Your task to perform on an android device: Open Google Chrome Image 0: 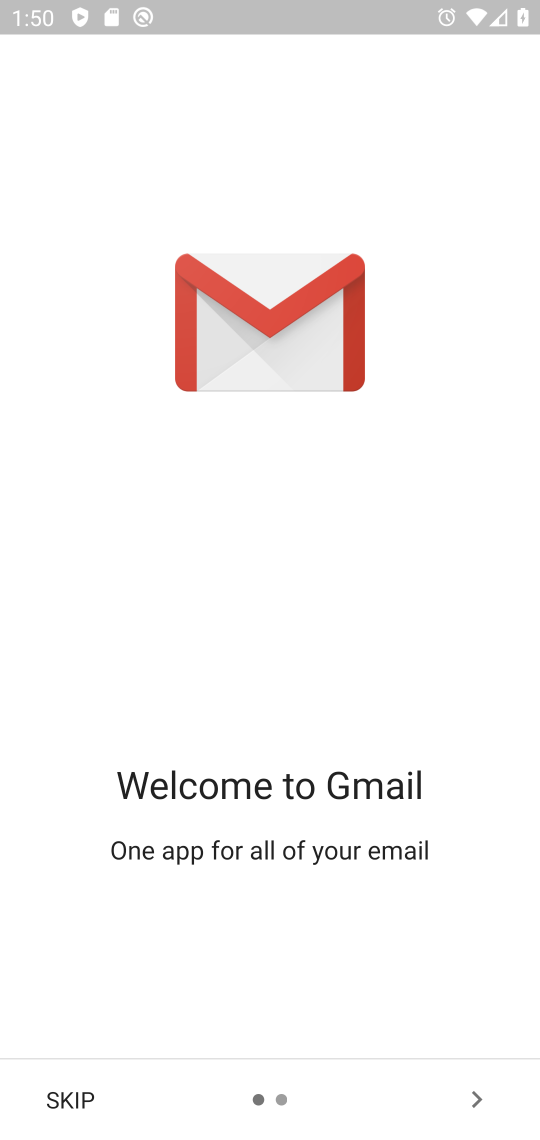
Step 0: click (55, 1109)
Your task to perform on an android device: Open Google Chrome Image 1: 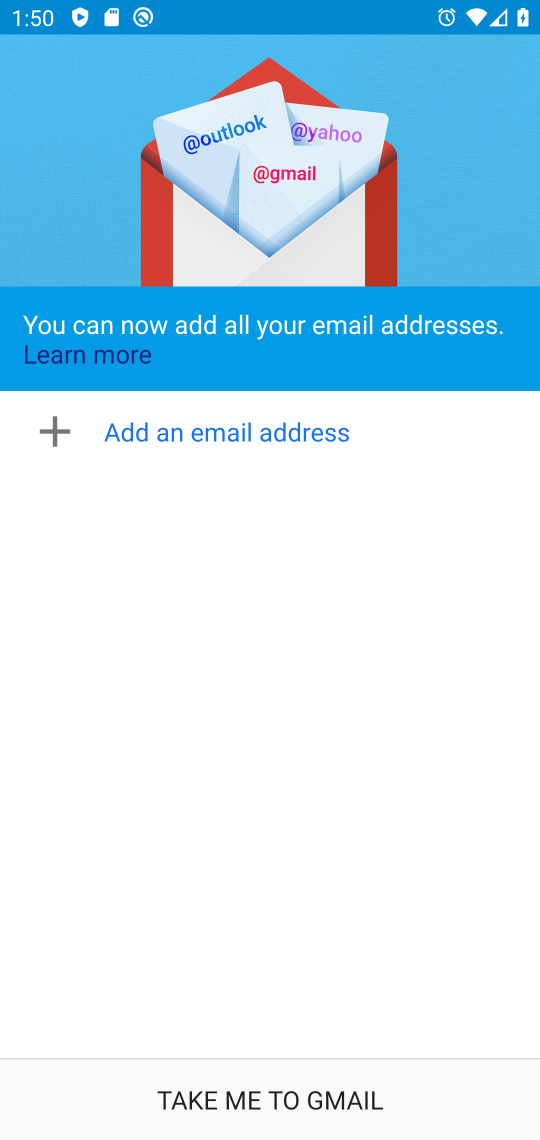
Step 1: press home button
Your task to perform on an android device: Open Google Chrome Image 2: 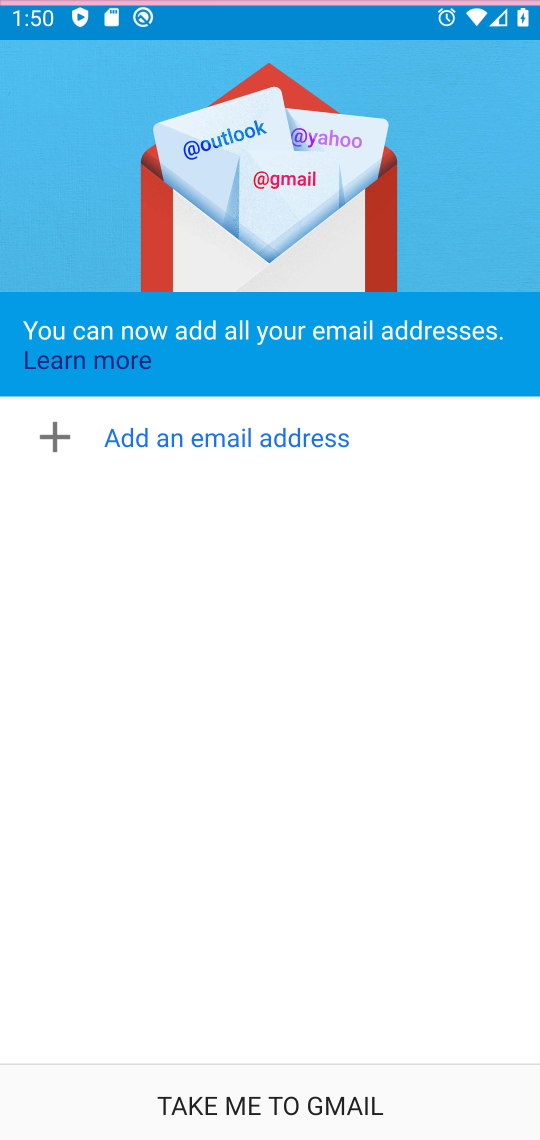
Step 2: drag from (350, 772) to (10, 162)
Your task to perform on an android device: Open Google Chrome Image 3: 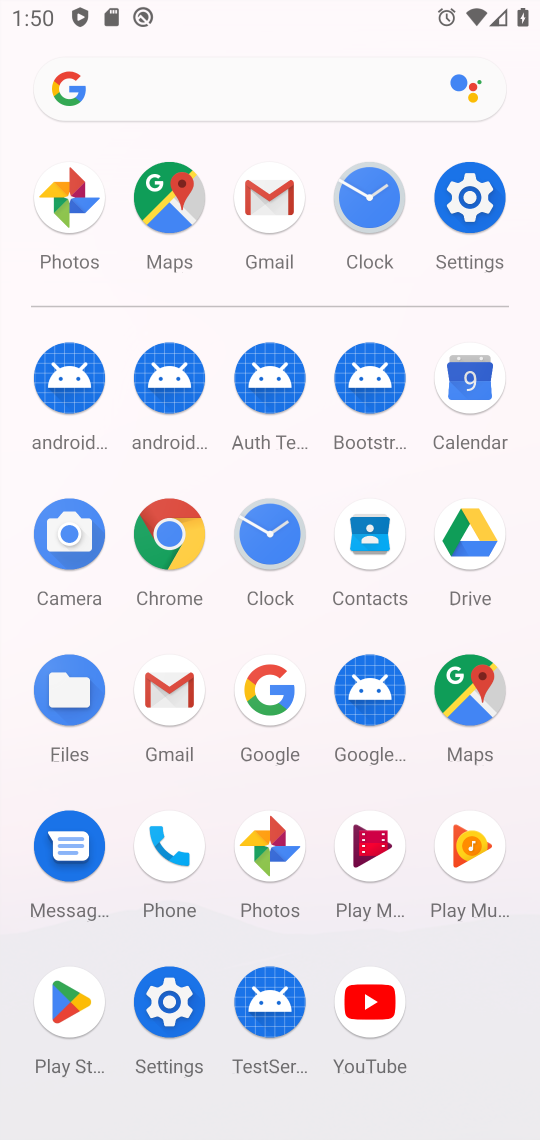
Step 3: click (170, 545)
Your task to perform on an android device: Open Google Chrome Image 4: 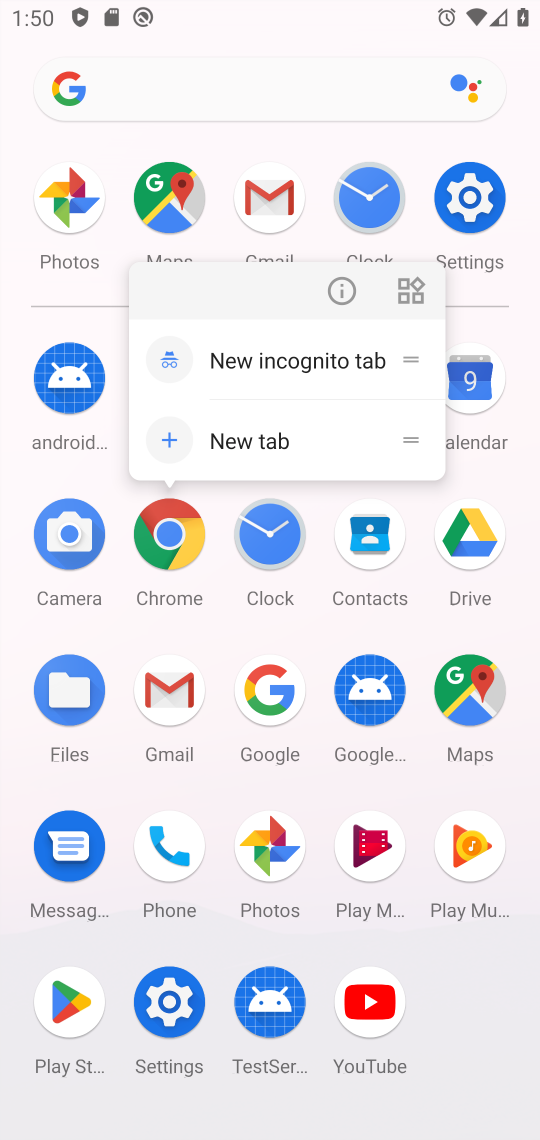
Step 4: click (330, 285)
Your task to perform on an android device: Open Google Chrome Image 5: 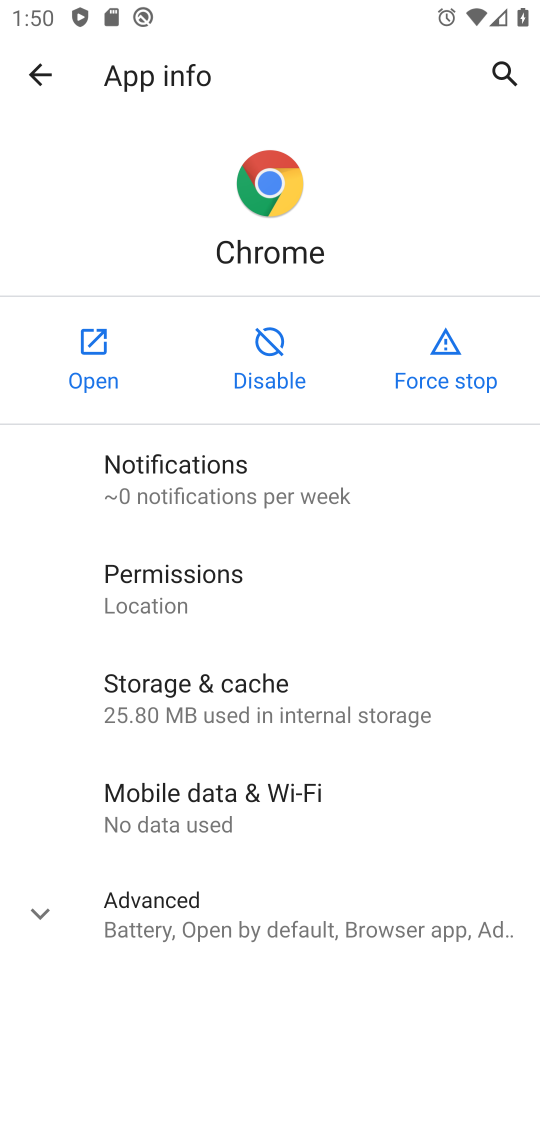
Step 5: click (99, 351)
Your task to perform on an android device: Open Google Chrome Image 6: 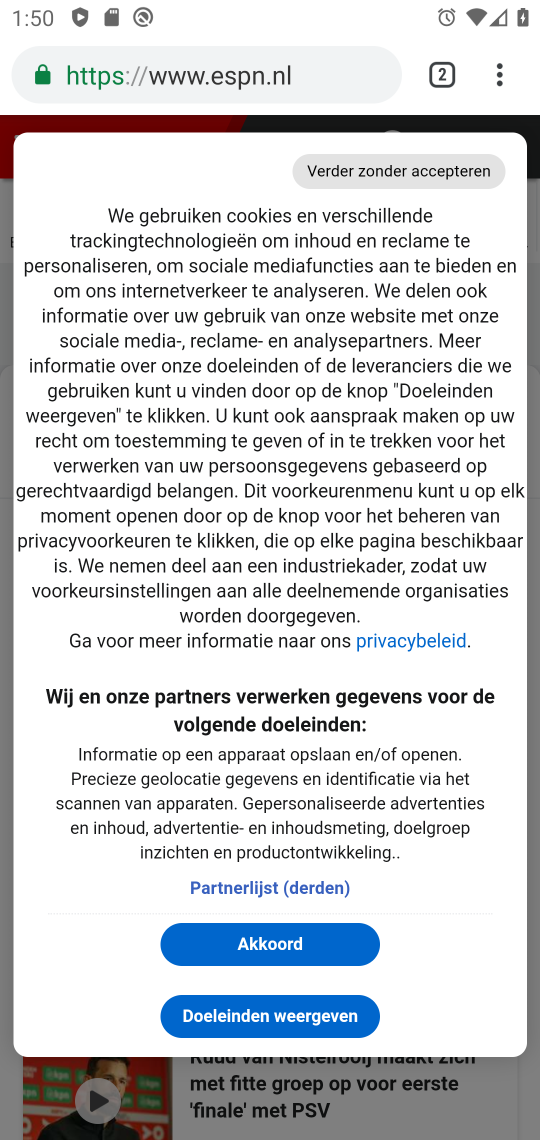
Step 6: task complete